Your task to perform on an android device: Go to Amazon Image 0: 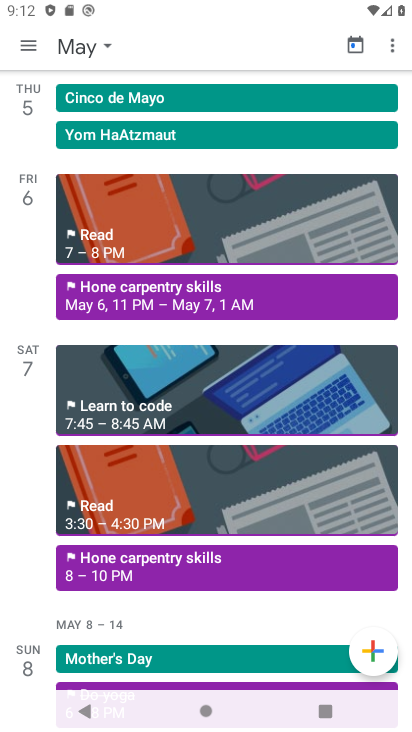
Step 0: press back button
Your task to perform on an android device: Go to Amazon Image 1: 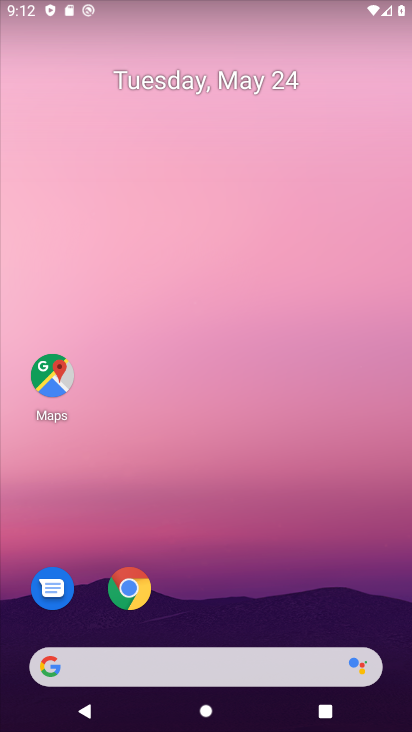
Step 1: click (132, 584)
Your task to perform on an android device: Go to Amazon Image 2: 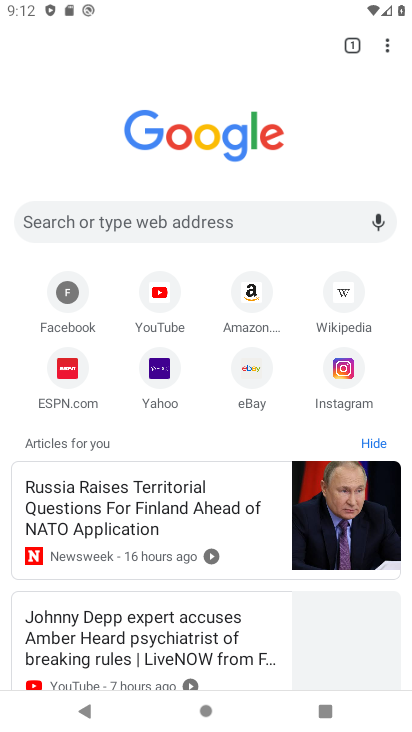
Step 2: click (256, 300)
Your task to perform on an android device: Go to Amazon Image 3: 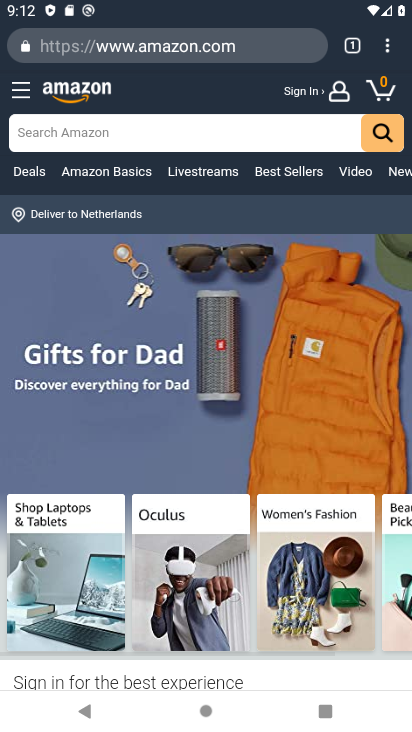
Step 3: task complete